Your task to perform on an android device: delete a single message in the gmail app Image 0: 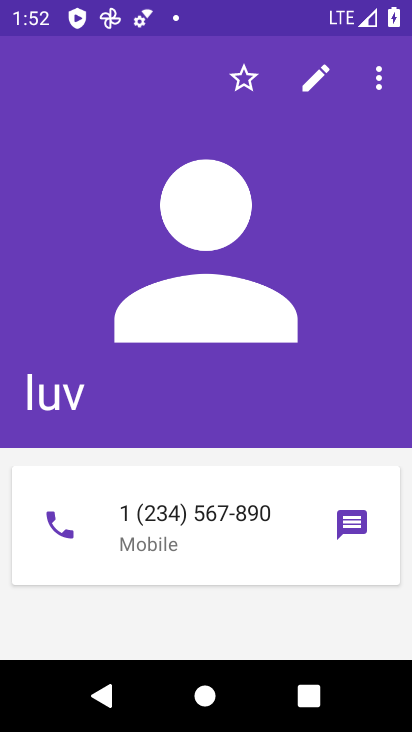
Step 0: press home button
Your task to perform on an android device: delete a single message in the gmail app Image 1: 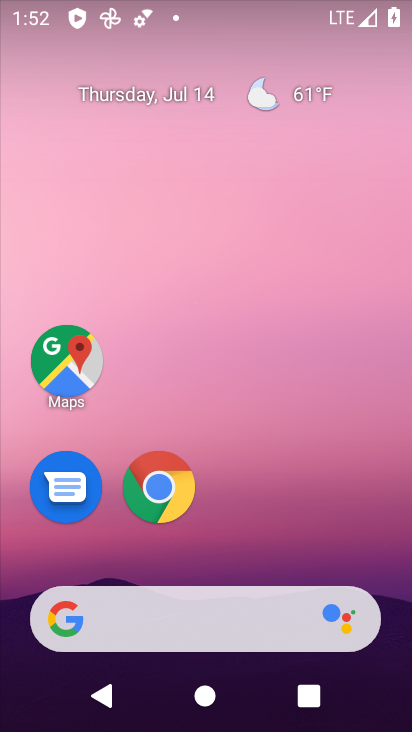
Step 1: drag from (363, 522) to (373, 128)
Your task to perform on an android device: delete a single message in the gmail app Image 2: 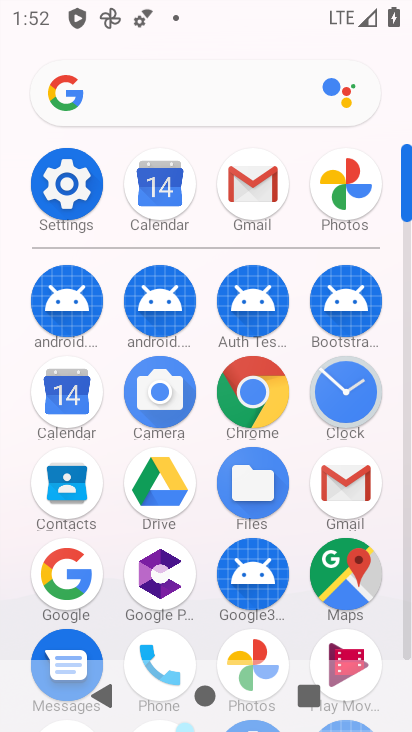
Step 2: click (349, 478)
Your task to perform on an android device: delete a single message in the gmail app Image 3: 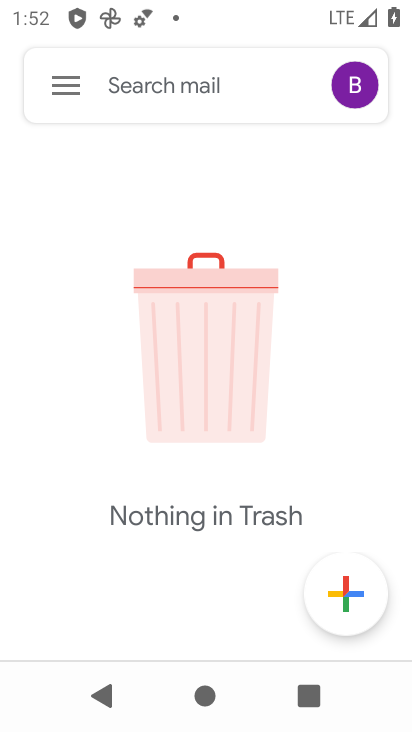
Step 3: click (67, 76)
Your task to perform on an android device: delete a single message in the gmail app Image 4: 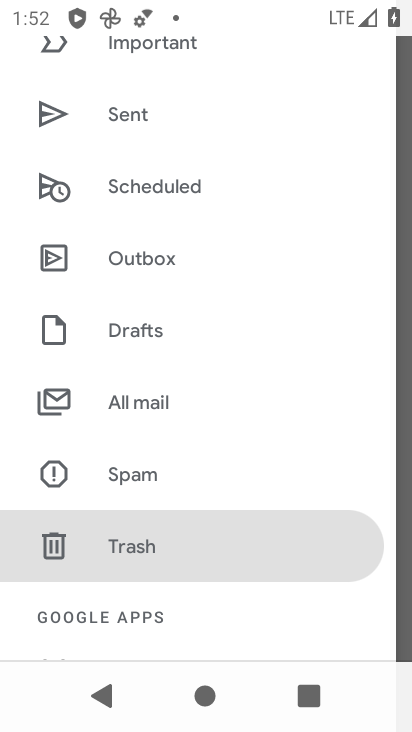
Step 4: drag from (251, 262) to (260, 359)
Your task to perform on an android device: delete a single message in the gmail app Image 5: 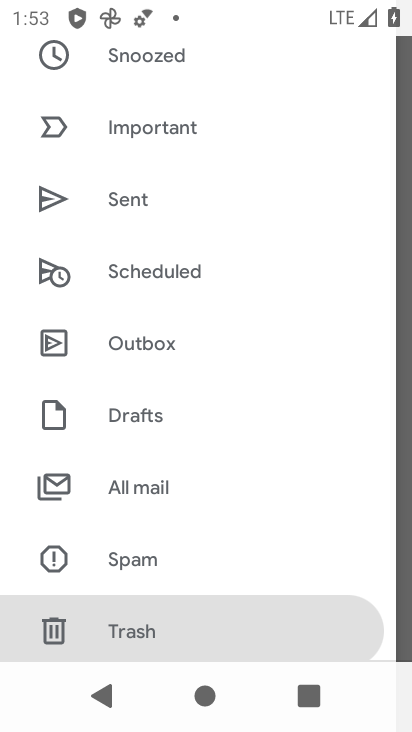
Step 5: drag from (279, 271) to (277, 357)
Your task to perform on an android device: delete a single message in the gmail app Image 6: 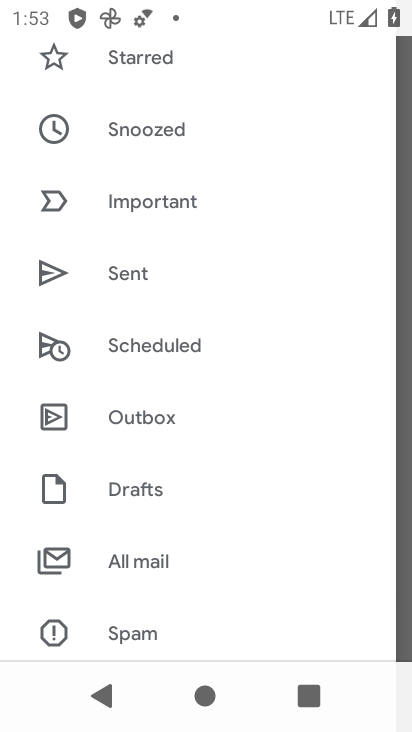
Step 6: drag from (286, 253) to (285, 372)
Your task to perform on an android device: delete a single message in the gmail app Image 7: 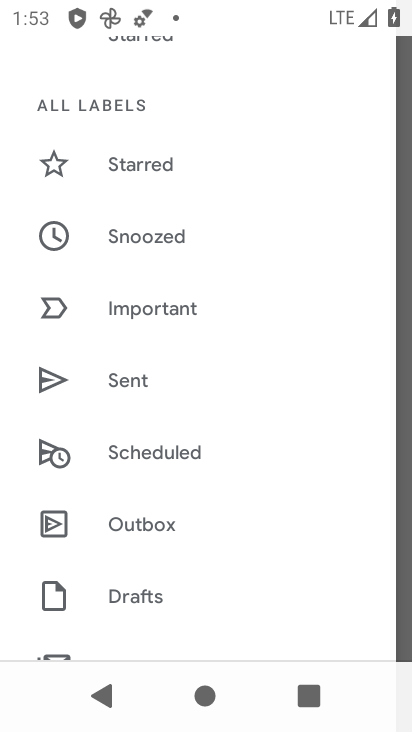
Step 7: drag from (298, 198) to (303, 343)
Your task to perform on an android device: delete a single message in the gmail app Image 8: 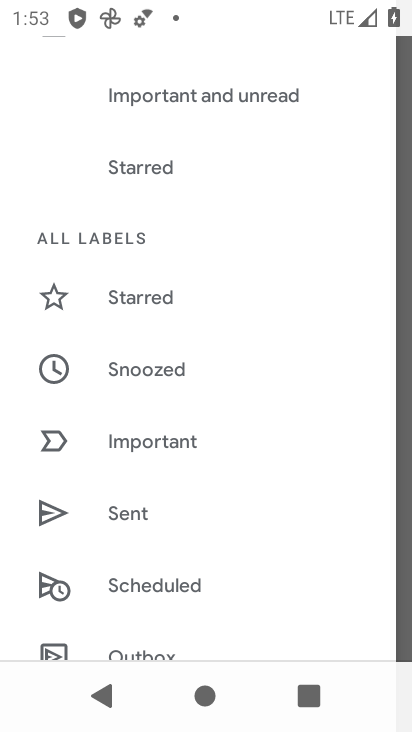
Step 8: drag from (309, 181) to (322, 344)
Your task to perform on an android device: delete a single message in the gmail app Image 9: 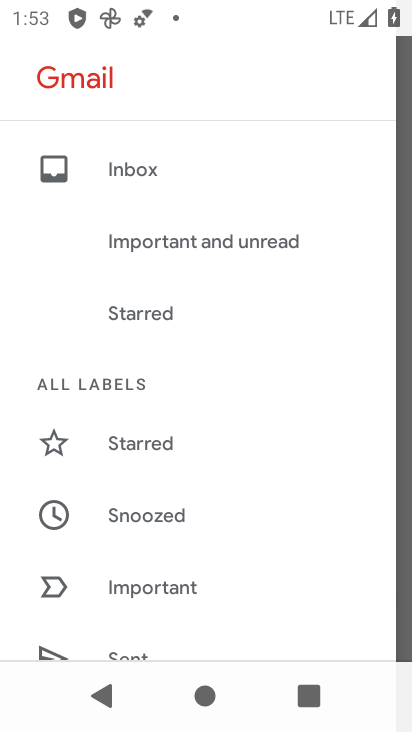
Step 9: click (177, 191)
Your task to perform on an android device: delete a single message in the gmail app Image 10: 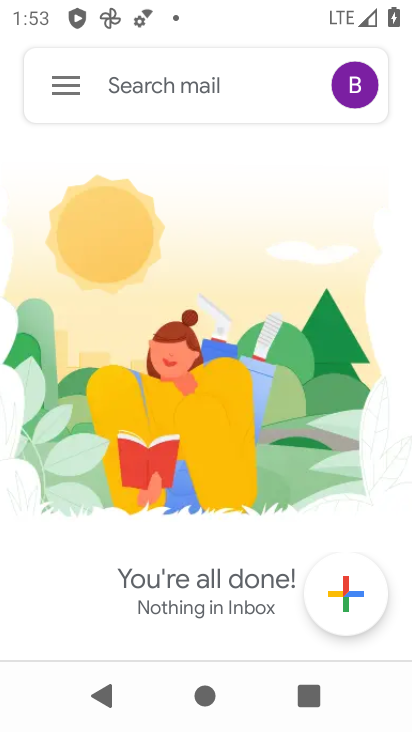
Step 10: task complete